Your task to perform on an android device: turn on wifi Image 0: 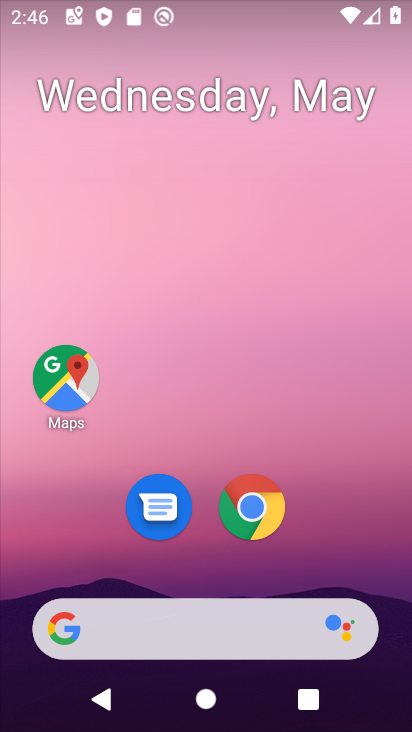
Step 0: drag from (216, 567) to (306, 10)
Your task to perform on an android device: turn on wifi Image 1: 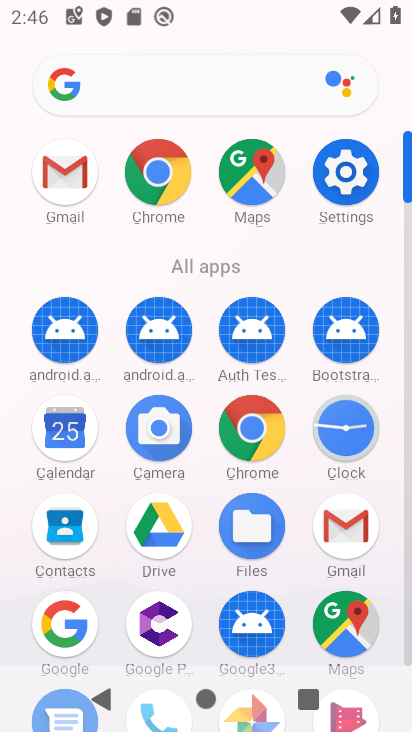
Step 1: click (348, 195)
Your task to perform on an android device: turn on wifi Image 2: 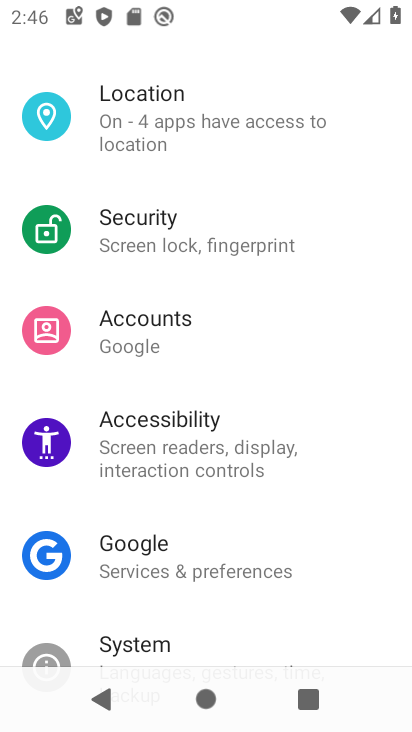
Step 2: drag from (211, 198) to (192, 668)
Your task to perform on an android device: turn on wifi Image 3: 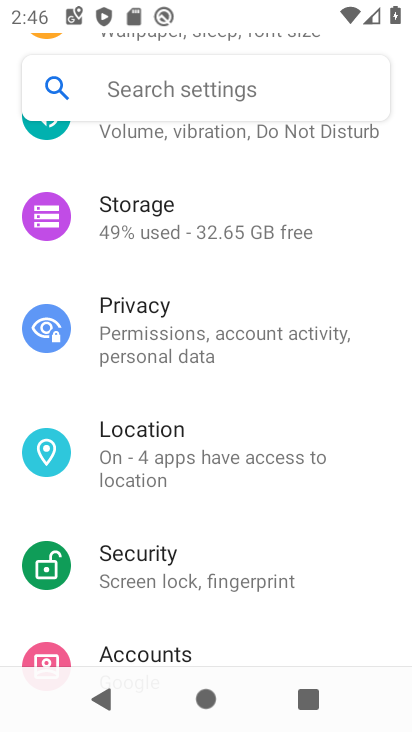
Step 3: drag from (197, 178) to (212, 583)
Your task to perform on an android device: turn on wifi Image 4: 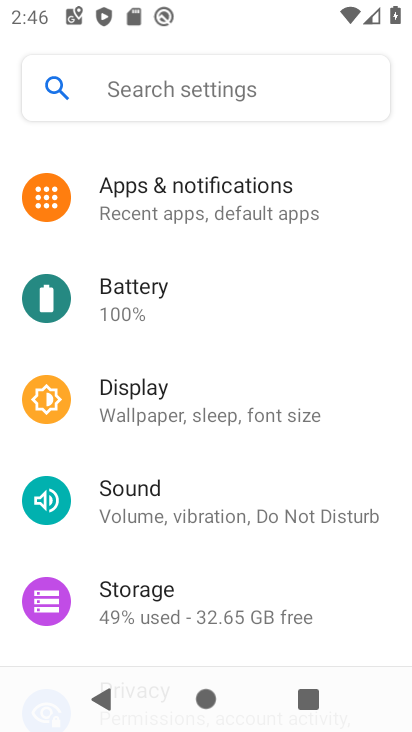
Step 4: drag from (207, 222) to (187, 601)
Your task to perform on an android device: turn on wifi Image 5: 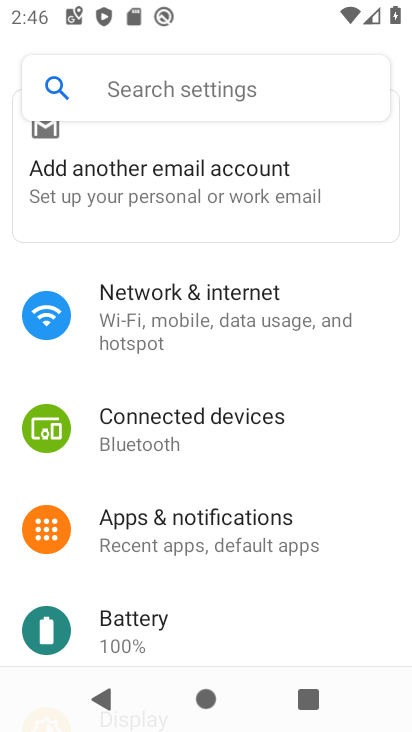
Step 5: click (217, 318)
Your task to perform on an android device: turn on wifi Image 6: 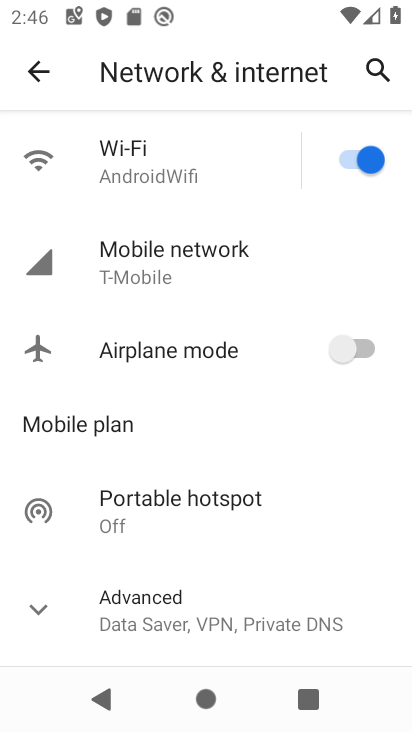
Step 6: task complete